Your task to perform on an android device: visit the assistant section in the google photos Image 0: 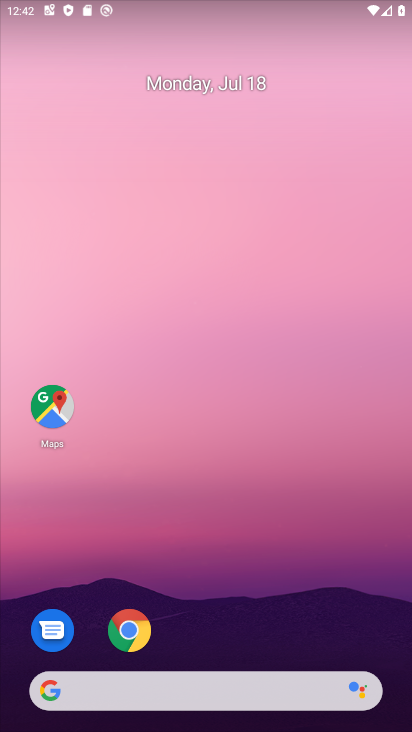
Step 0: drag from (304, 615) to (276, 0)
Your task to perform on an android device: visit the assistant section in the google photos Image 1: 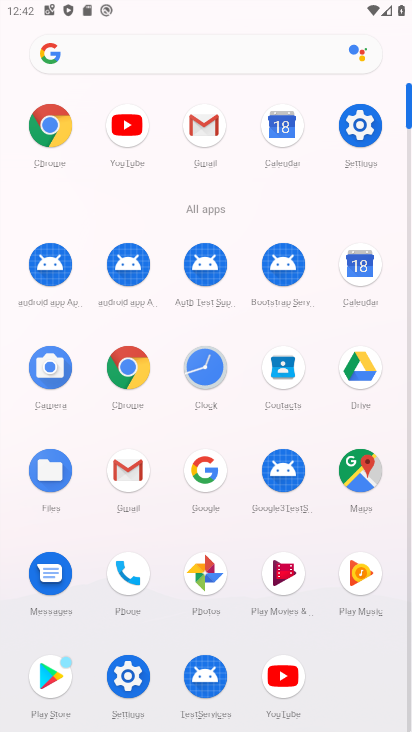
Step 1: click (200, 578)
Your task to perform on an android device: visit the assistant section in the google photos Image 2: 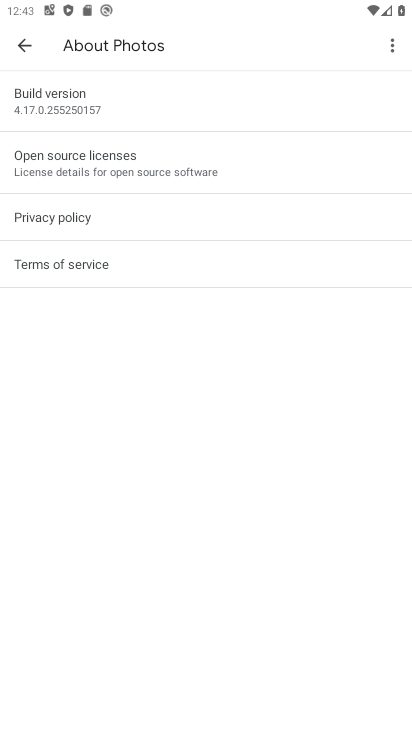
Step 2: click (26, 44)
Your task to perform on an android device: visit the assistant section in the google photos Image 3: 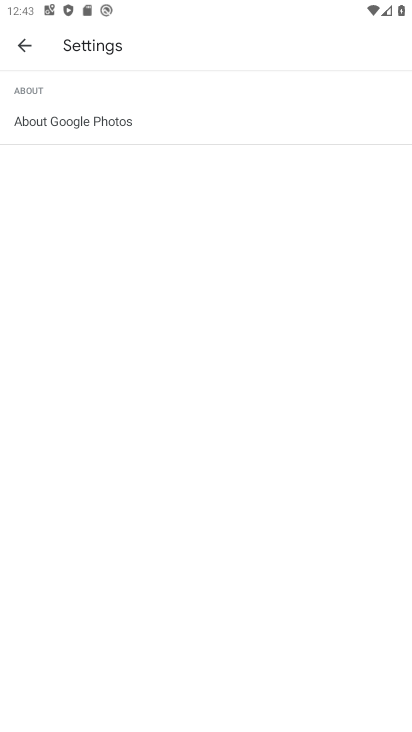
Step 3: click (26, 44)
Your task to perform on an android device: visit the assistant section in the google photos Image 4: 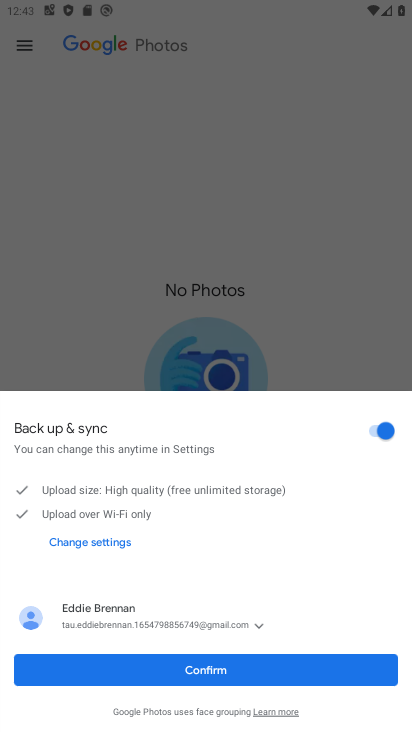
Step 4: click (213, 671)
Your task to perform on an android device: visit the assistant section in the google photos Image 5: 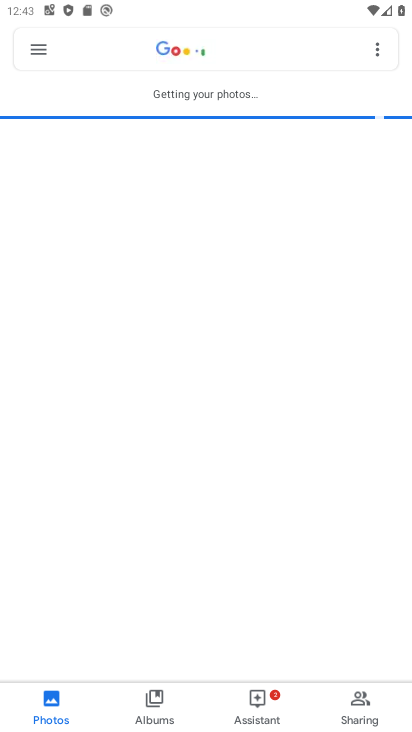
Step 5: click (252, 697)
Your task to perform on an android device: visit the assistant section in the google photos Image 6: 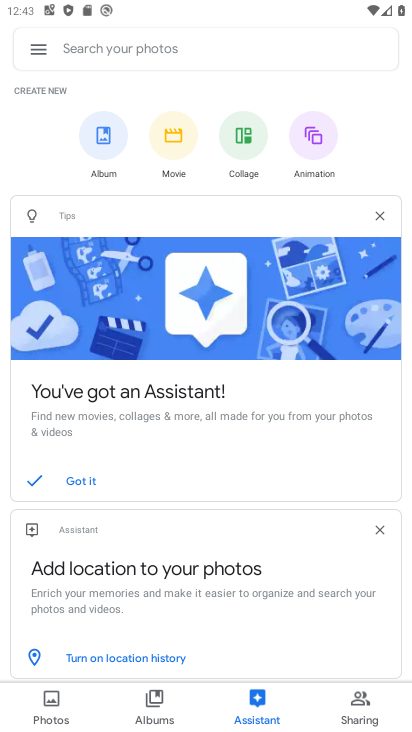
Step 6: task complete